Your task to perform on an android device: Show the shopping cart on amazon. Search for usb-b on amazon, select the first entry, and add it to the cart. Image 0: 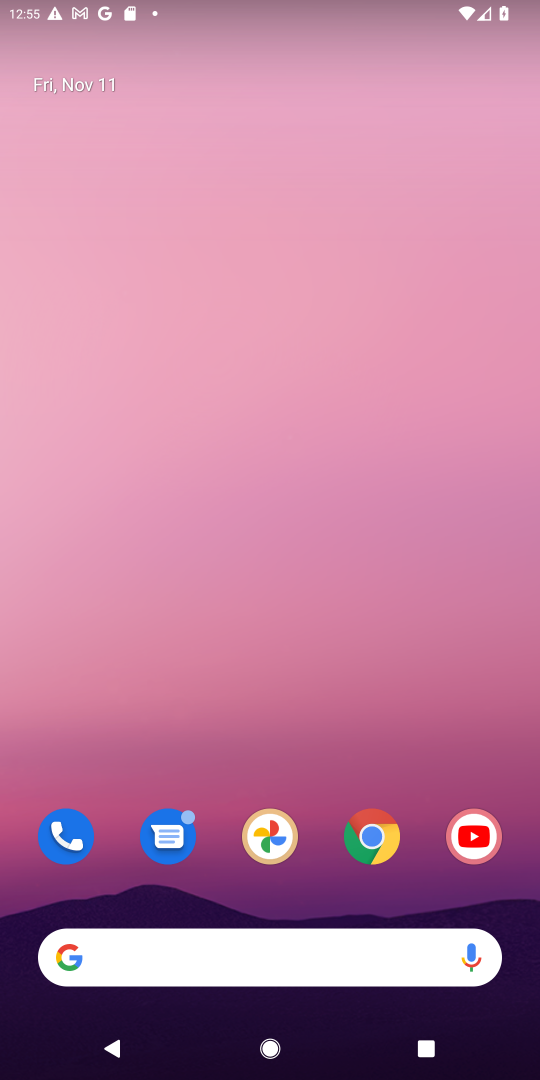
Step 0: click (236, 950)
Your task to perform on an android device: Show the shopping cart on amazon. Search for usb-b on amazon, select the first entry, and add it to the cart. Image 1: 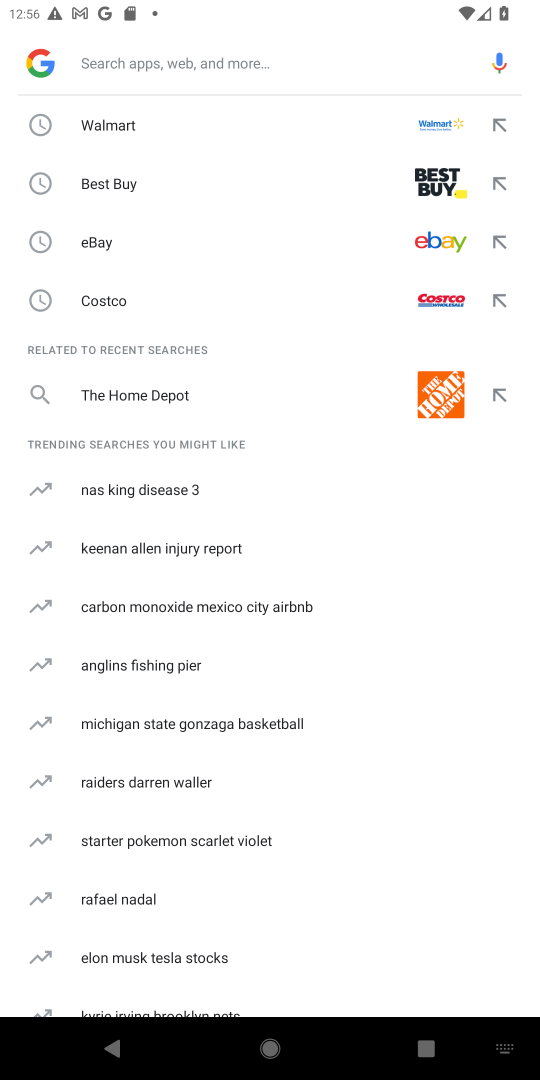
Step 1: click (242, 958)
Your task to perform on an android device: Show the shopping cart on amazon. Search for usb-b on amazon, select the first entry, and add it to the cart. Image 2: 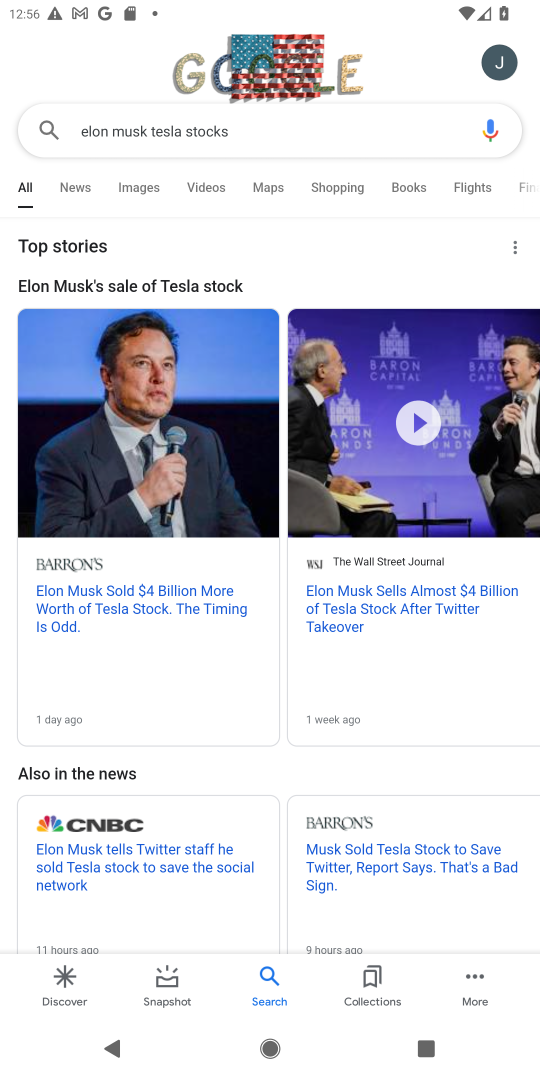
Step 2: click (254, 135)
Your task to perform on an android device: Show the shopping cart on amazon. Search for usb-b on amazon, select the first entry, and add it to the cart. Image 3: 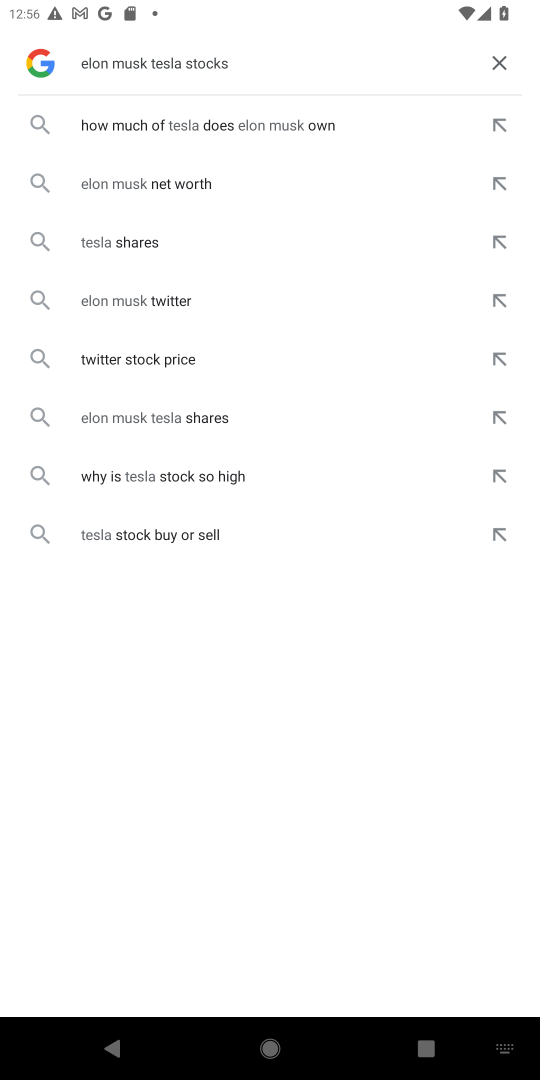
Step 3: click (501, 58)
Your task to perform on an android device: Show the shopping cart on amazon. Search for usb-b on amazon, select the first entry, and add it to the cart. Image 4: 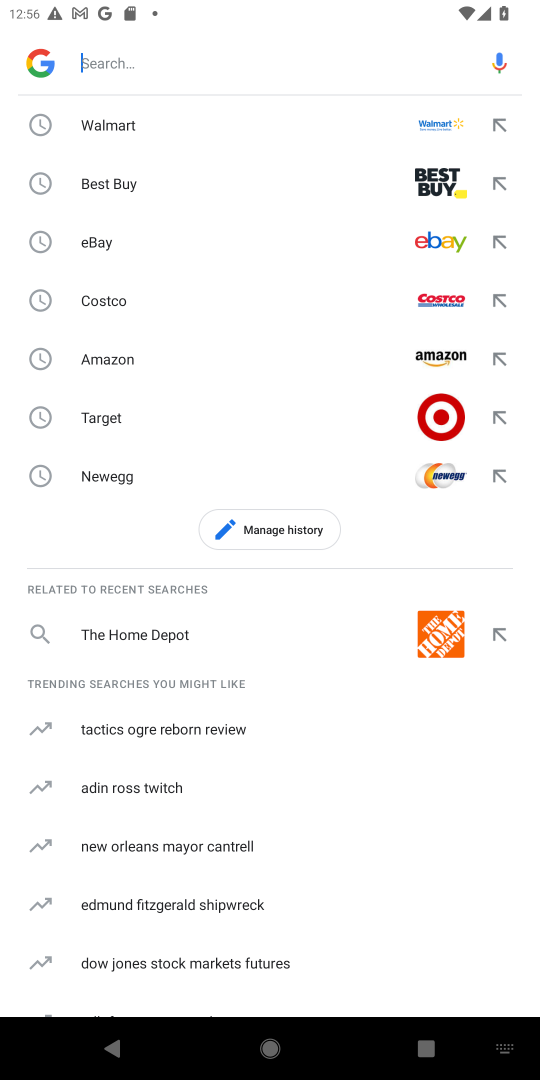
Step 4: click (134, 366)
Your task to perform on an android device: Show the shopping cart on amazon. Search for usb-b on amazon, select the first entry, and add it to the cart. Image 5: 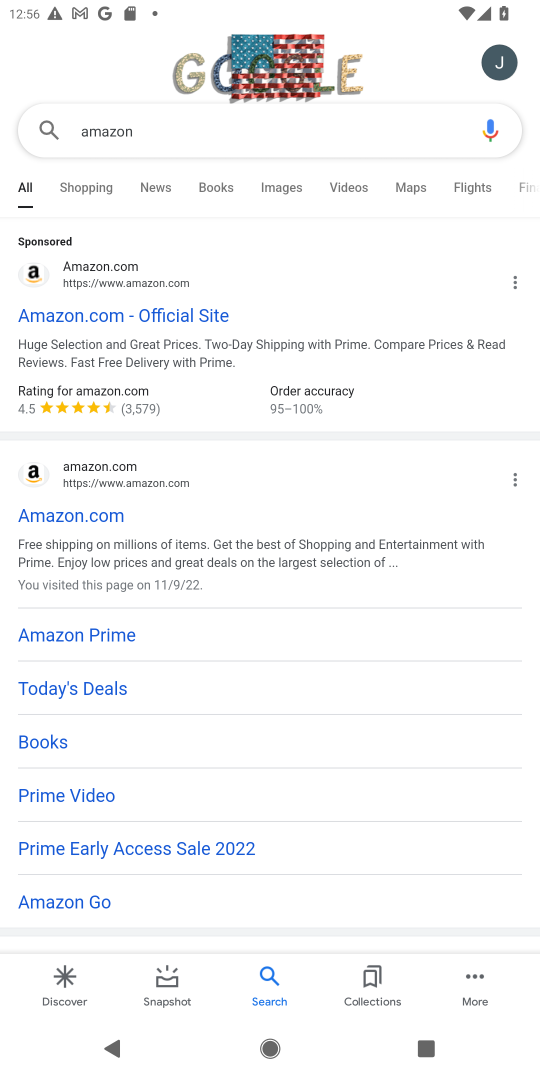
Step 5: click (94, 316)
Your task to perform on an android device: Show the shopping cart on amazon. Search for usb-b on amazon, select the first entry, and add it to the cart. Image 6: 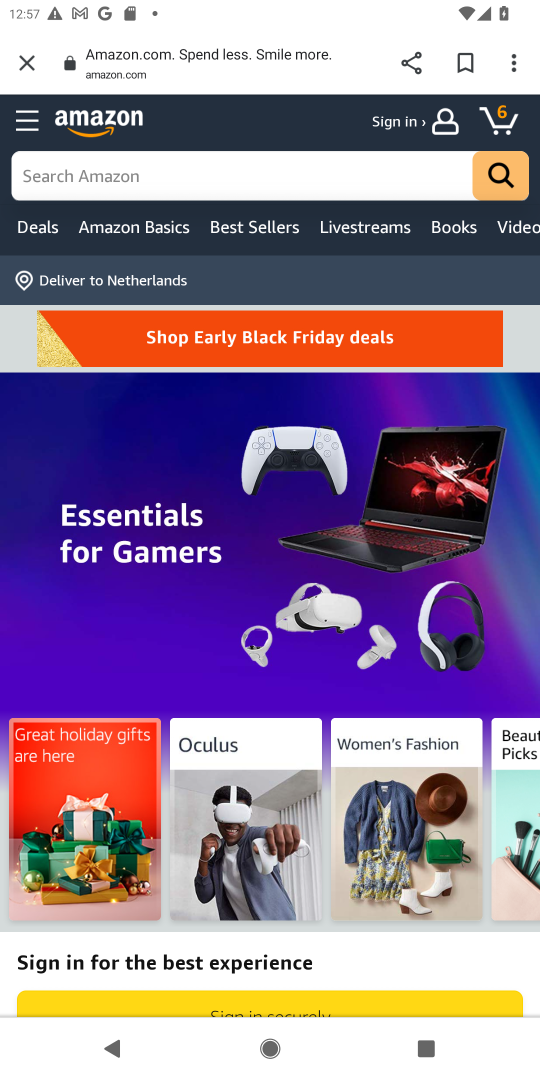
Step 6: click (200, 171)
Your task to perform on an android device: Show the shopping cart on amazon. Search for usb-b on amazon, select the first entry, and add it to the cart. Image 7: 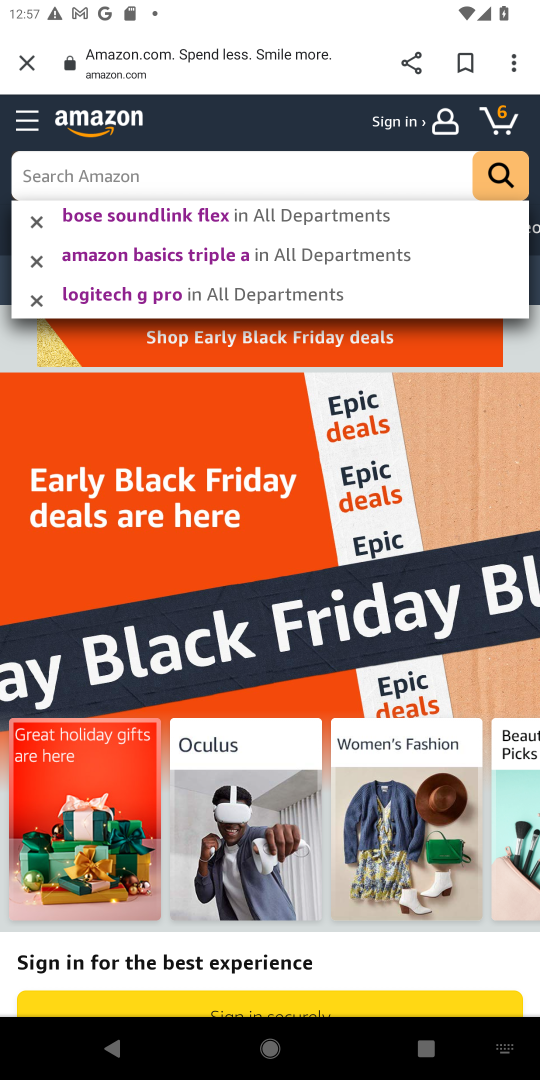
Step 7: click (499, 104)
Your task to perform on an android device: Show the shopping cart on amazon. Search for usb-b on amazon, select the first entry, and add it to the cart. Image 8: 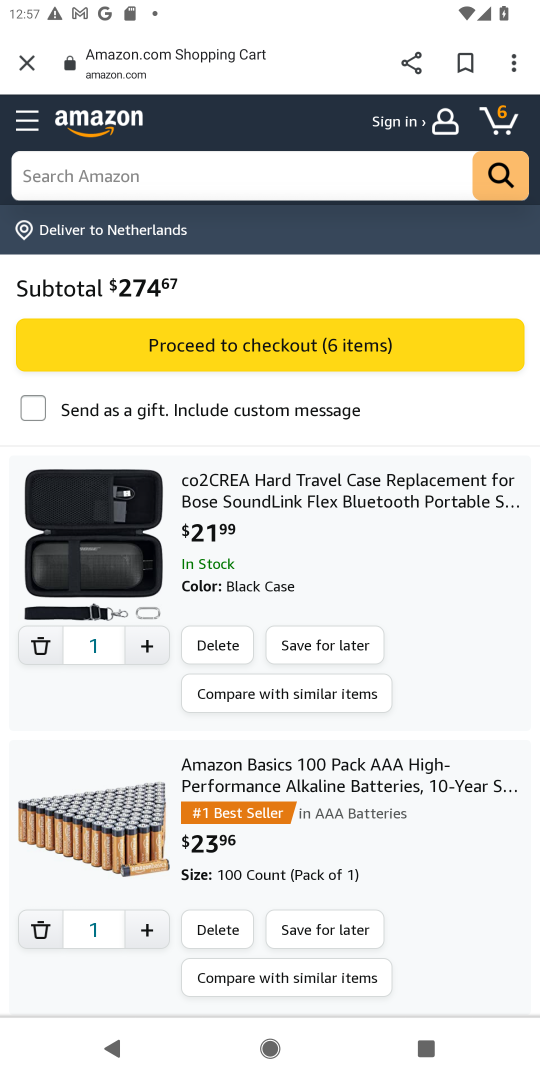
Step 8: click (499, 121)
Your task to perform on an android device: Show the shopping cart on amazon. Search for usb-b on amazon, select the first entry, and add it to the cart. Image 9: 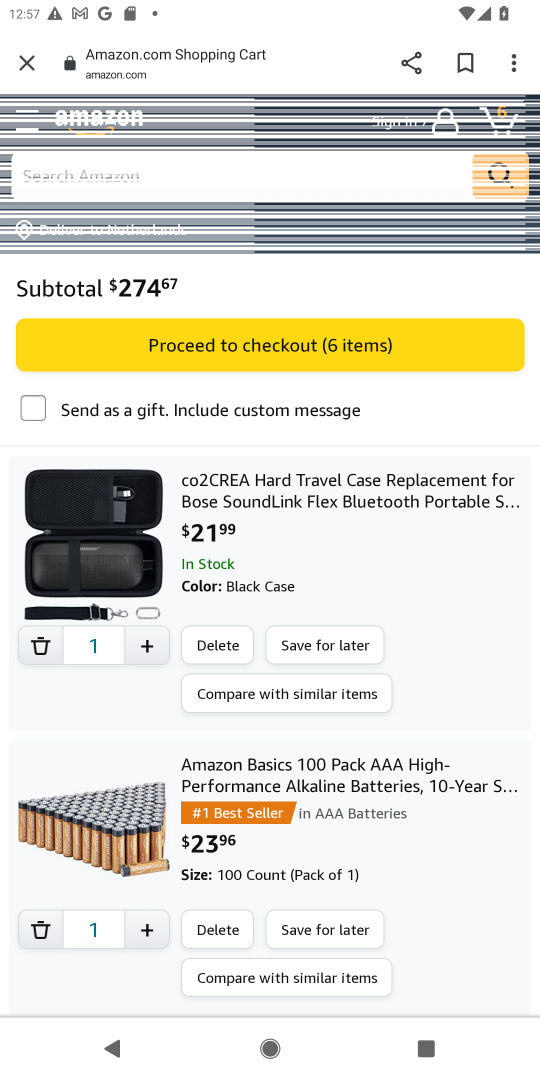
Step 9: click (248, 173)
Your task to perform on an android device: Show the shopping cart on amazon. Search for usb-b on amazon, select the first entry, and add it to the cart. Image 10: 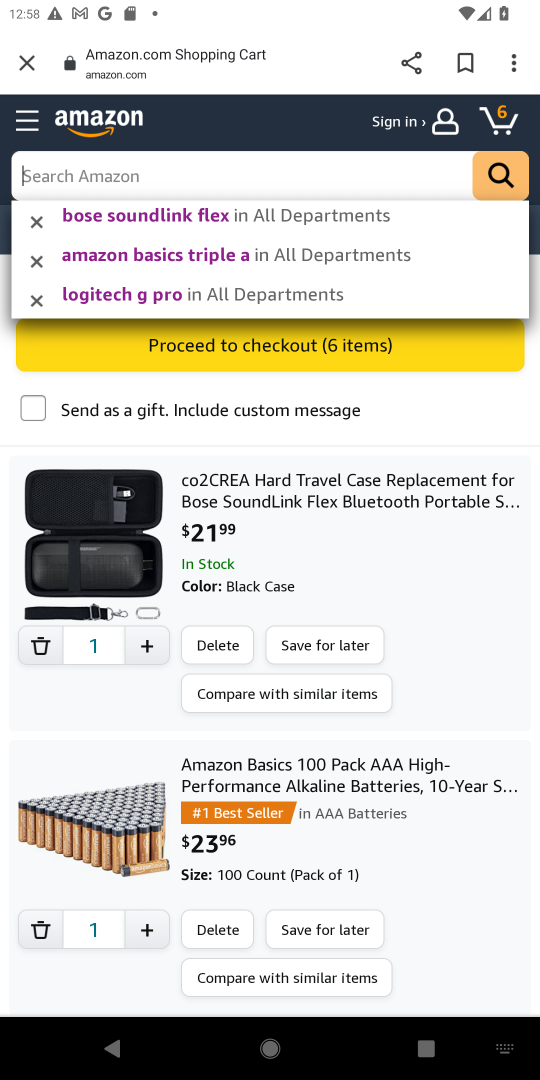
Step 10: type "usb-b "
Your task to perform on an android device: Show the shopping cart on amazon. Search for usb-b on amazon, select the first entry, and add it to the cart. Image 11: 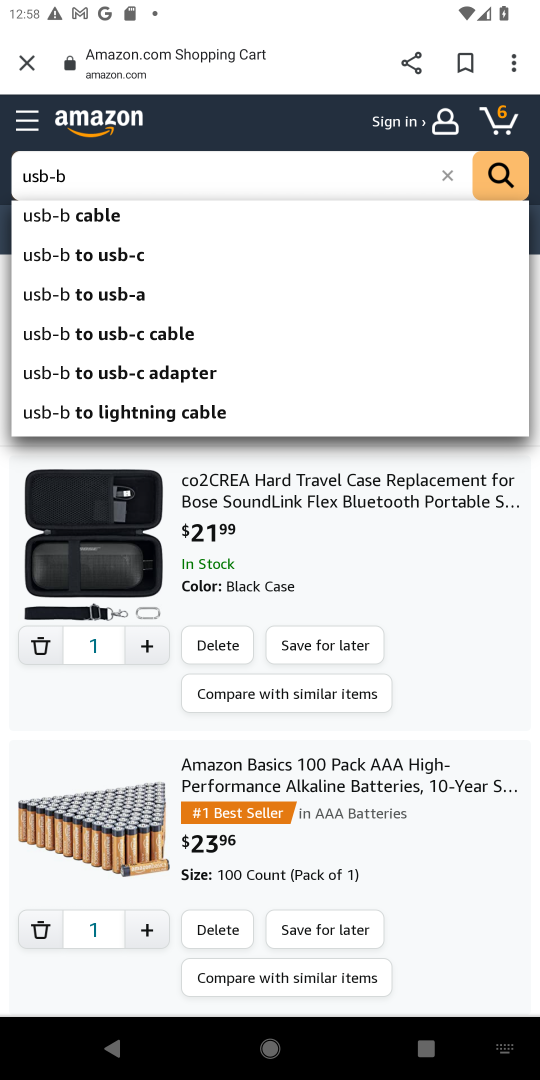
Step 11: click (104, 210)
Your task to perform on an android device: Show the shopping cart on amazon. Search for usb-b on amazon, select the first entry, and add it to the cart. Image 12: 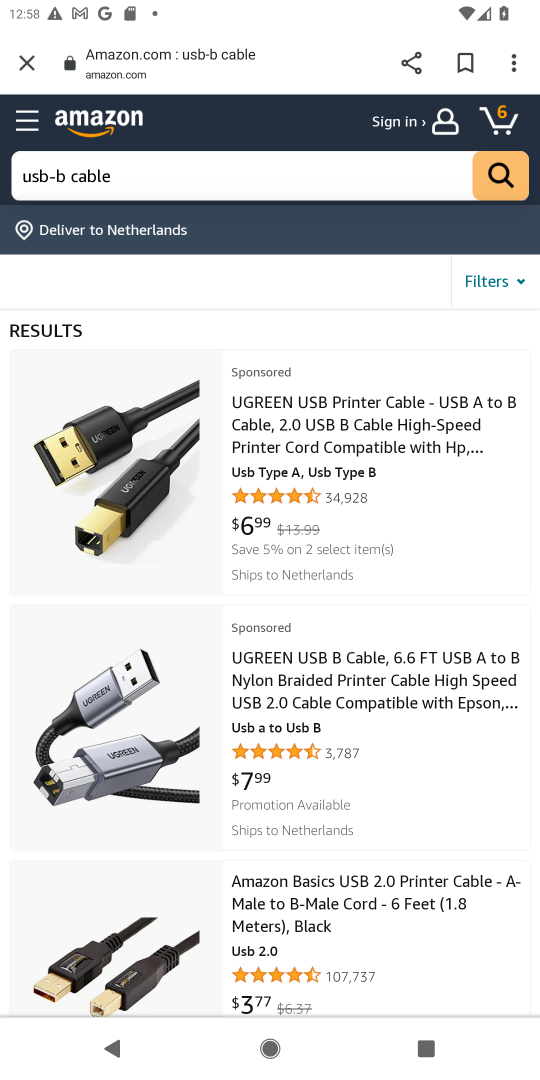
Step 12: click (220, 450)
Your task to perform on an android device: Show the shopping cart on amazon. Search for usb-b on amazon, select the first entry, and add it to the cart. Image 13: 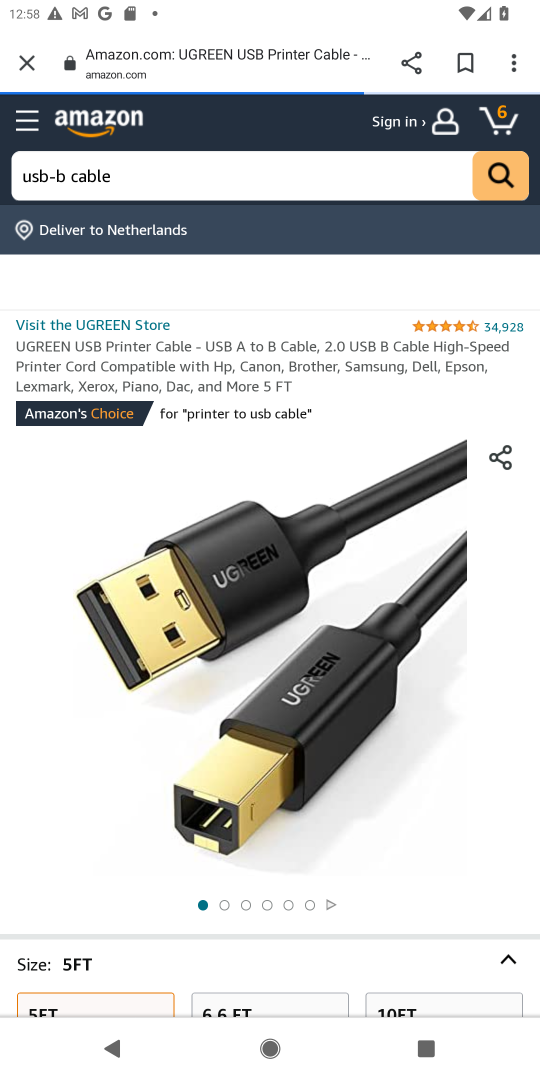
Step 13: drag from (234, 702) to (291, 409)
Your task to perform on an android device: Show the shopping cart on amazon. Search for usb-b on amazon, select the first entry, and add it to the cart. Image 14: 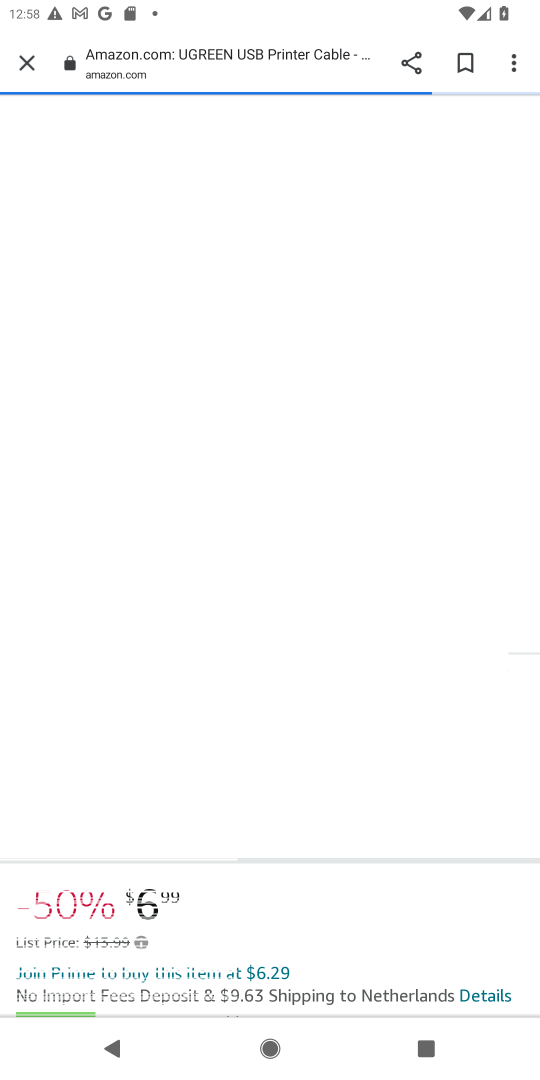
Step 14: drag from (249, 883) to (306, 586)
Your task to perform on an android device: Show the shopping cart on amazon. Search for usb-b on amazon, select the first entry, and add it to the cart. Image 15: 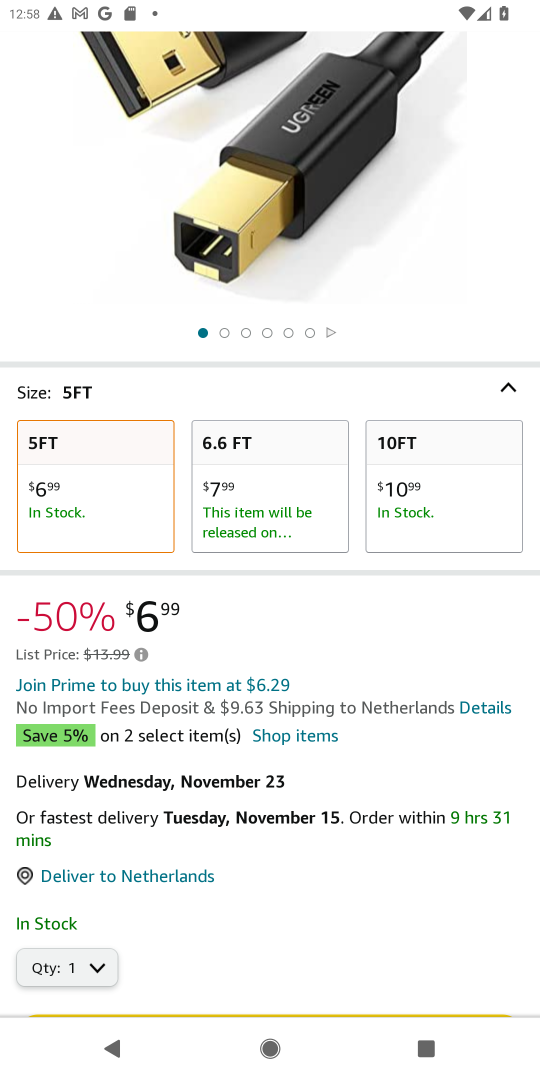
Step 15: drag from (204, 977) to (375, 324)
Your task to perform on an android device: Show the shopping cart on amazon. Search for usb-b on amazon, select the first entry, and add it to the cart. Image 16: 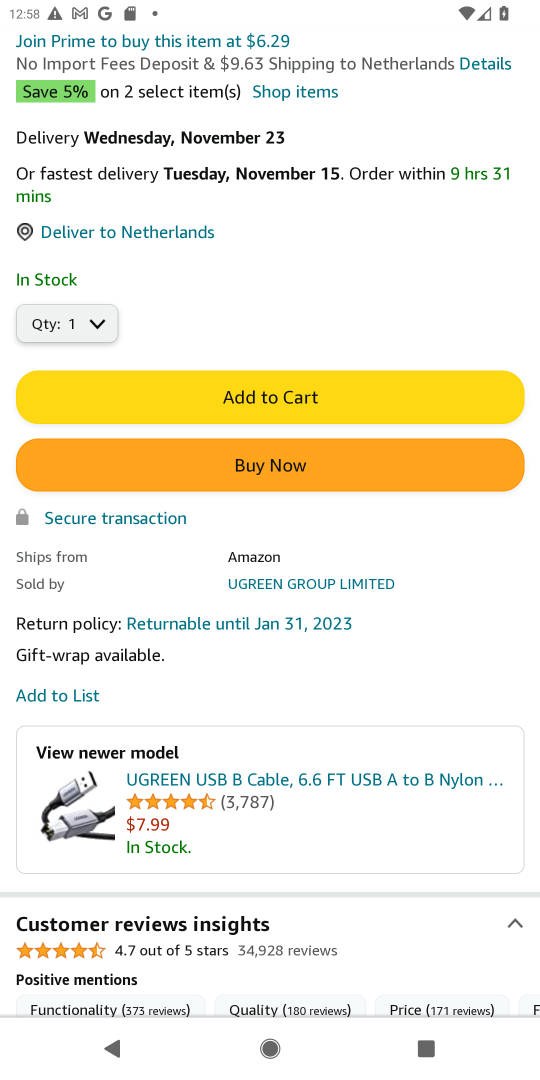
Step 16: click (272, 401)
Your task to perform on an android device: Show the shopping cart on amazon. Search for usb-b on amazon, select the first entry, and add it to the cart. Image 17: 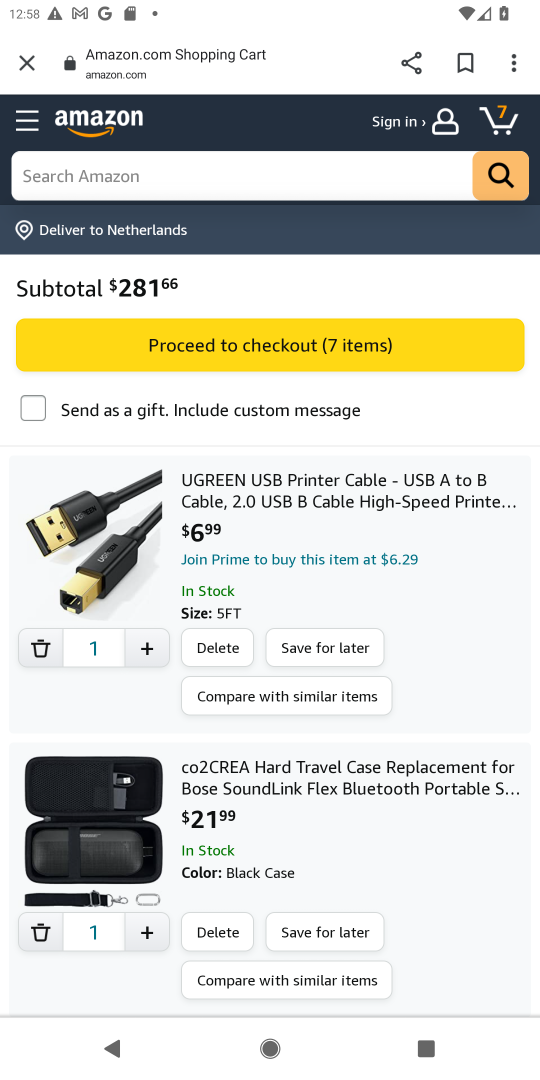
Step 17: click (296, 346)
Your task to perform on an android device: Show the shopping cart on amazon. Search for usb-b on amazon, select the first entry, and add it to the cart. Image 18: 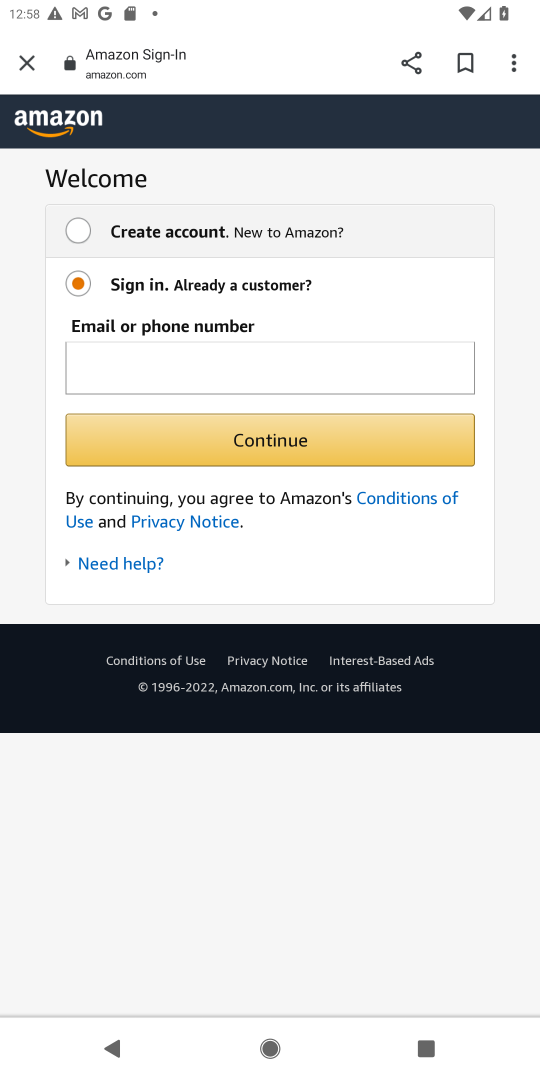
Step 18: task complete